Your task to perform on an android device: set the stopwatch Image 0: 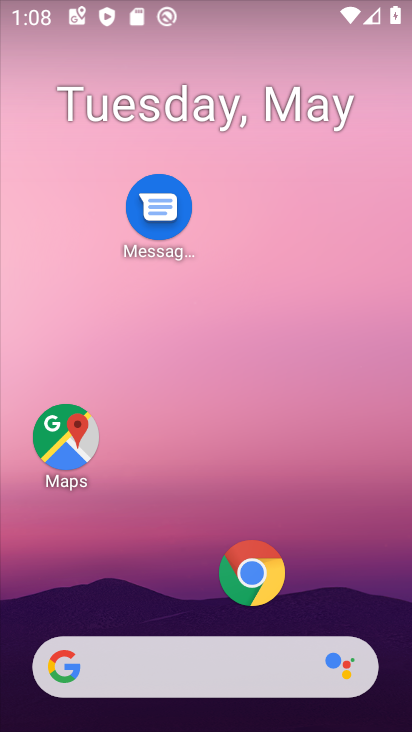
Step 0: click (222, 205)
Your task to perform on an android device: set the stopwatch Image 1: 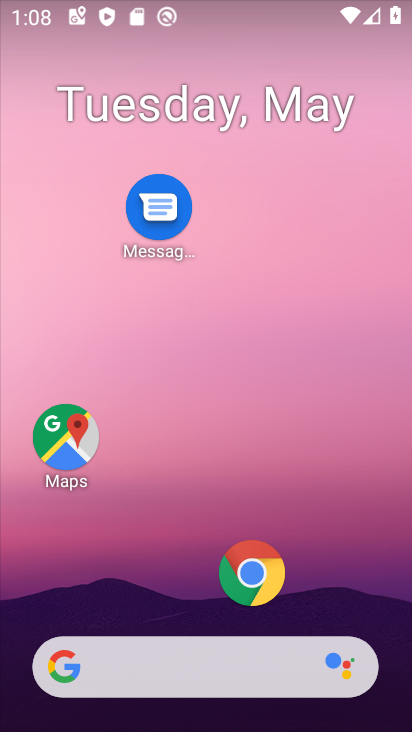
Step 1: drag from (186, 593) to (234, 45)
Your task to perform on an android device: set the stopwatch Image 2: 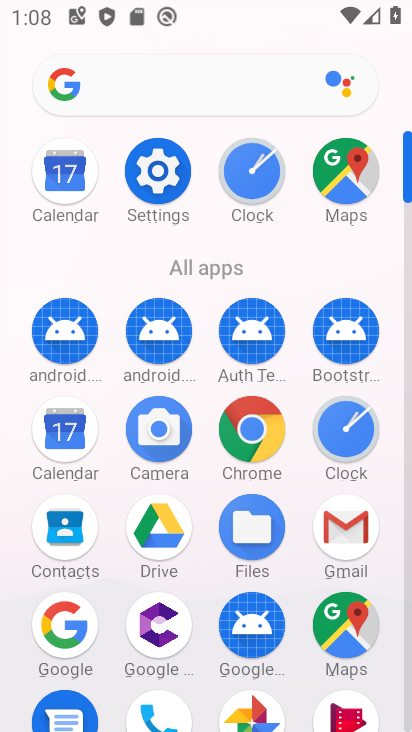
Step 2: click (338, 441)
Your task to perform on an android device: set the stopwatch Image 3: 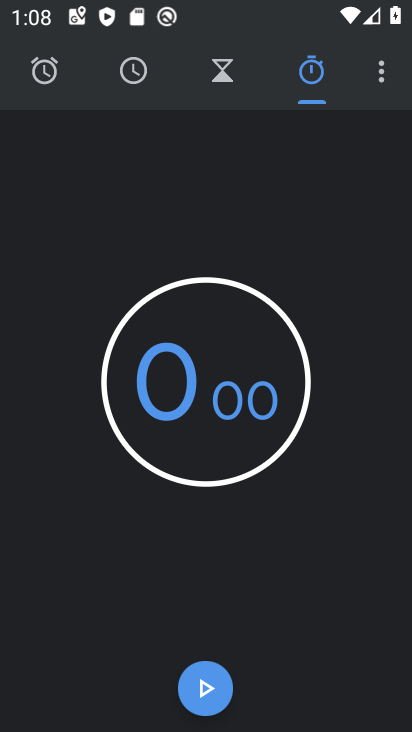
Step 3: click (199, 679)
Your task to perform on an android device: set the stopwatch Image 4: 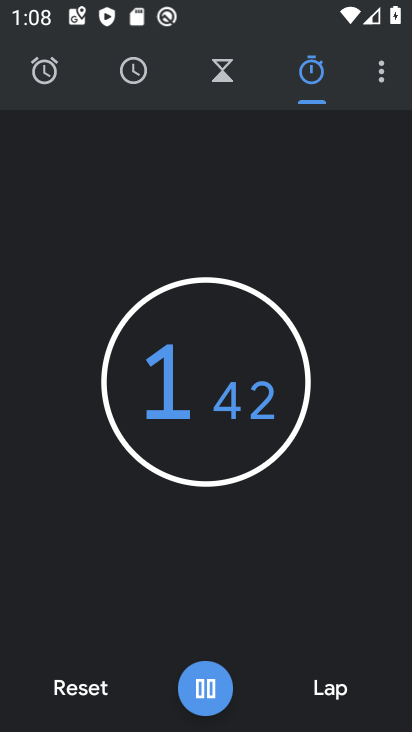
Step 4: task complete